Your task to perform on an android device: Open network settings Image 0: 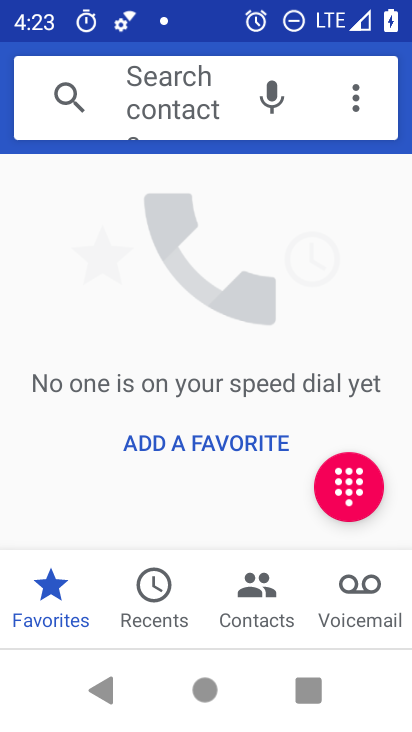
Step 0: press home button
Your task to perform on an android device: Open network settings Image 1: 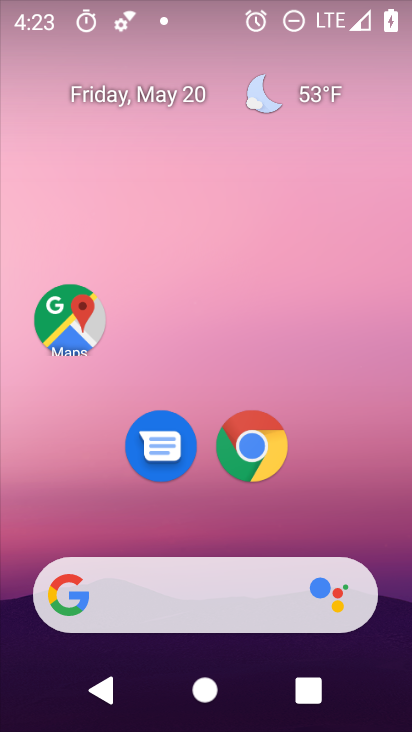
Step 1: drag from (368, 541) to (392, 269)
Your task to perform on an android device: Open network settings Image 2: 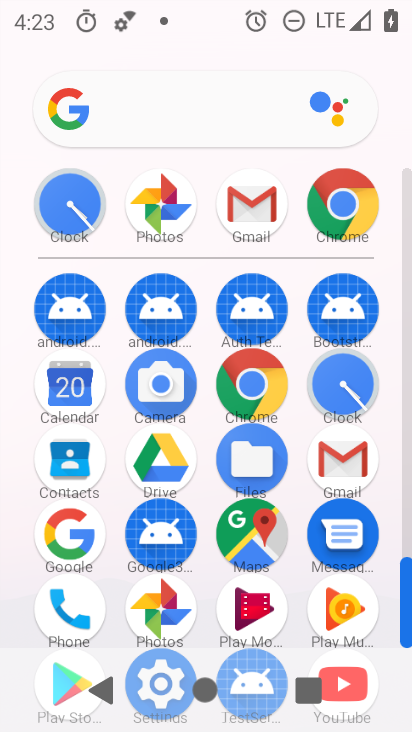
Step 2: drag from (400, 422) to (407, 130)
Your task to perform on an android device: Open network settings Image 3: 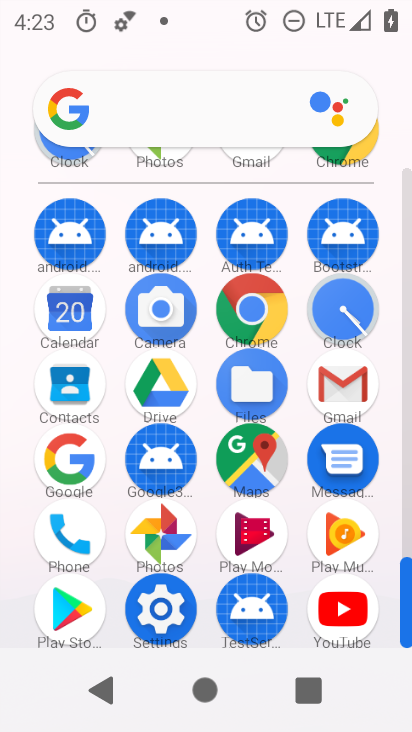
Step 3: click (181, 610)
Your task to perform on an android device: Open network settings Image 4: 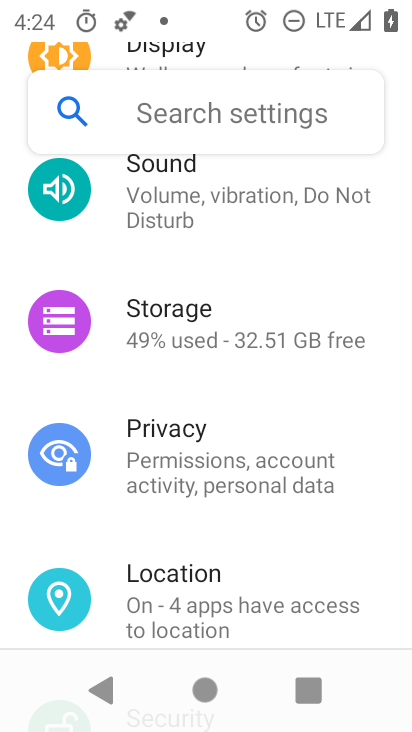
Step 4: drag from (262, 196) to (243, 627)
Your task to perform on an android device: Open network settings Image 5: 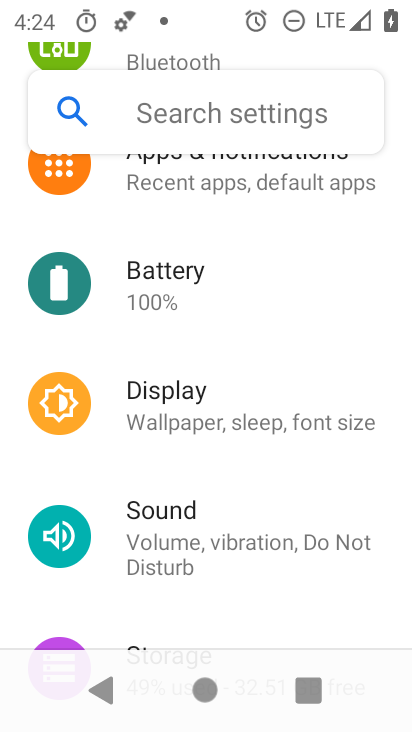
Step 5: drag from (199, 288) to (202, 643)
Your task to perform on an android device: Open network settings Image 6: 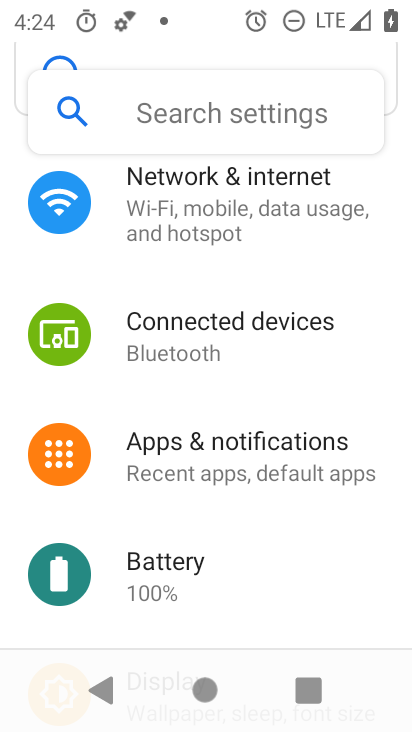
Step 6: drag from (214, 272) to (229, 640)
Your task to perform on an android device: Open network settings Image 7: 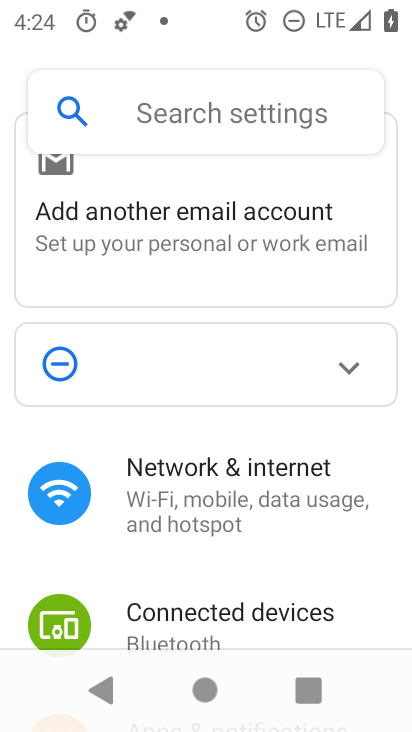
Step 7: click (171, 482)
Your task to perform on an android device: Open network settings Image 8: 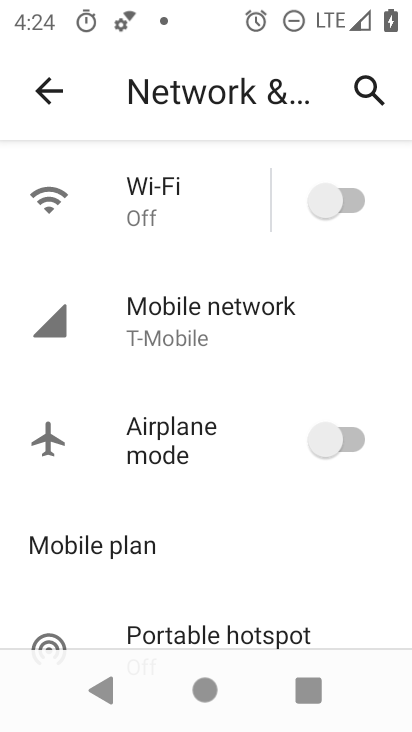
Step 8: click (168, 340)
Your task to perform on an android device: Open network settings Image 9: 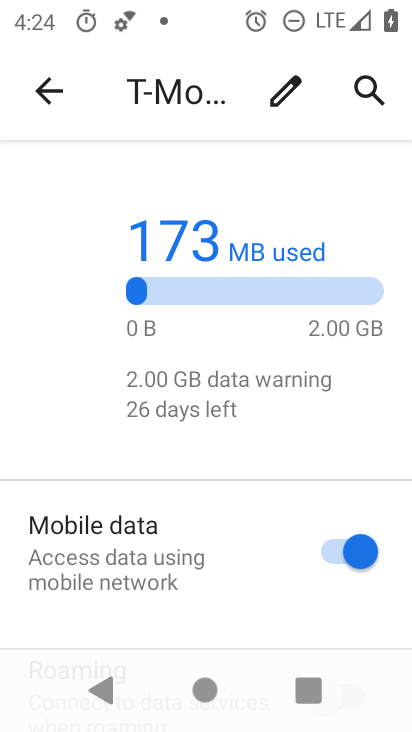
Step 9: task complete